Your task to perform on an android device: change timer sound Image 0: 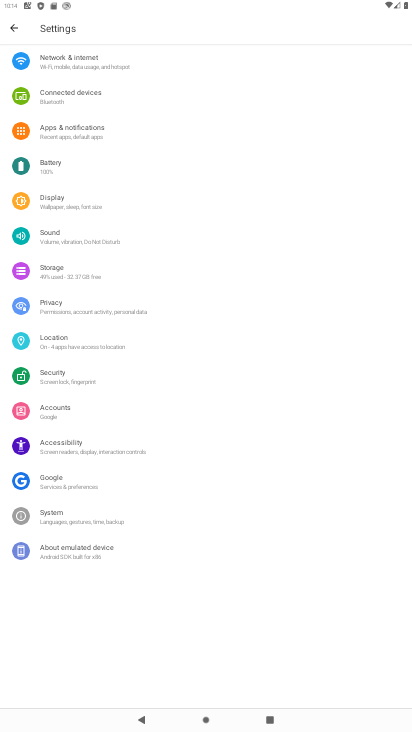
Step 0: click (57, 233)
Your task to perform on an android device: change timer sound Image 1: 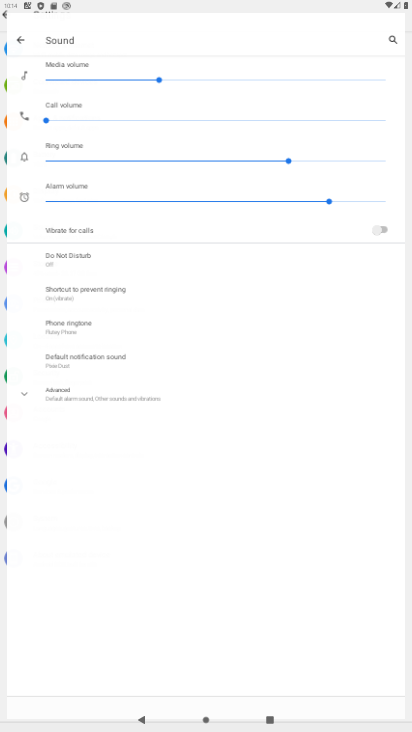
Step 1: task complete